Your task to perform on an android device: turn on the 24-hour format for clock Image 0: 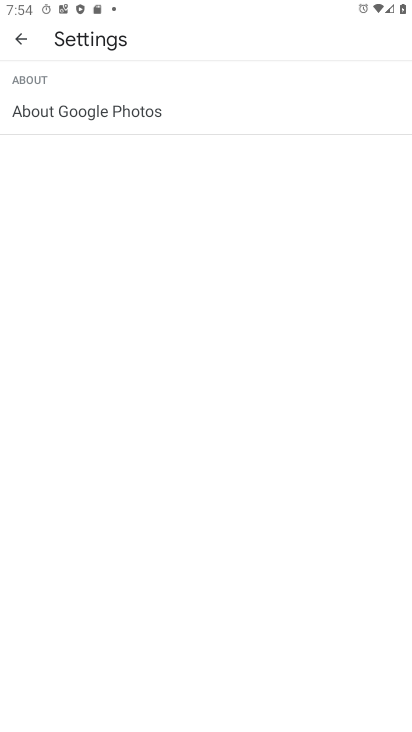
Step 0: press home button
Your task to perform on an android device: turn on the 24-hour format for clock Image 1: 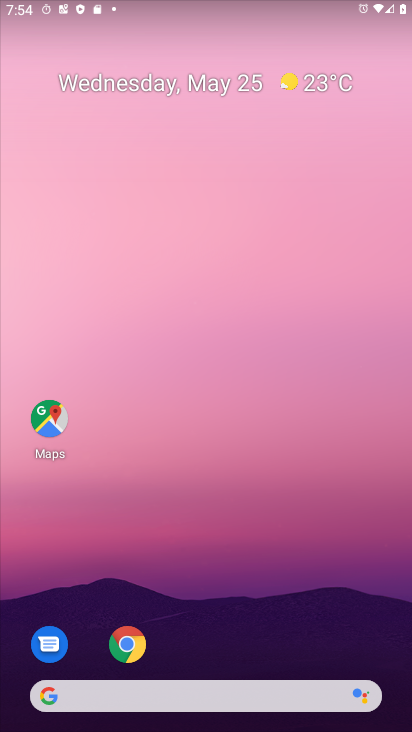
Step 1: drag from (276, 721) to (252, 69)
Your task to perform on an android device: turn on the 24-hour format for clock Image 2: 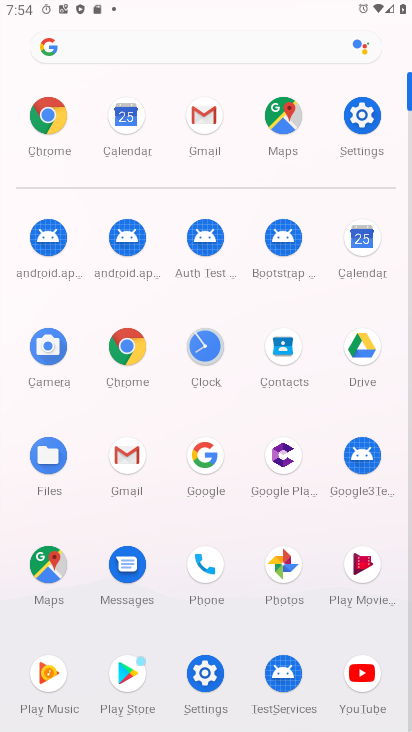
Step 2: click (214, 354)
Your task to perform on an android device: turn on the 24-hour format for clock Image 3: 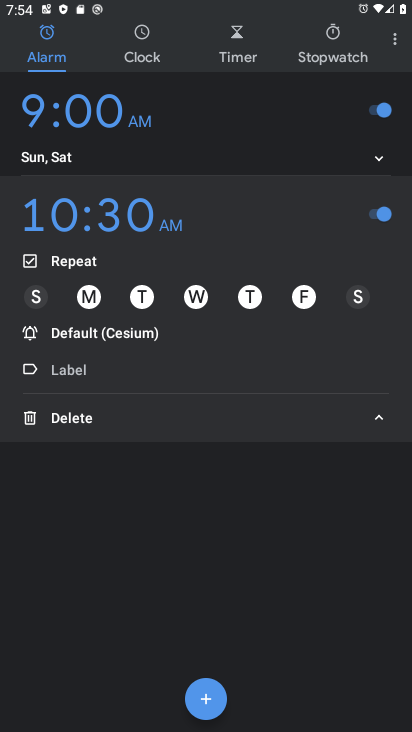
Step 3: click (387, 39)
Your task to perform on an android device: turn on the 24-hour format for clock Image 4: 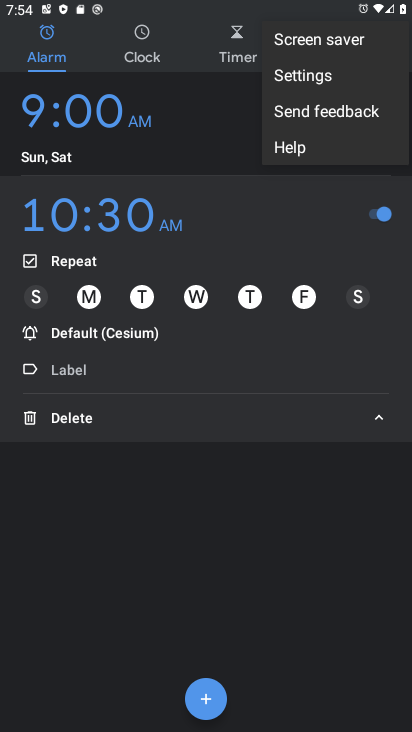
Step 4: click (330, 83)
Your task to perform on an android device: turn on the 24-hour format for clock Image 5: 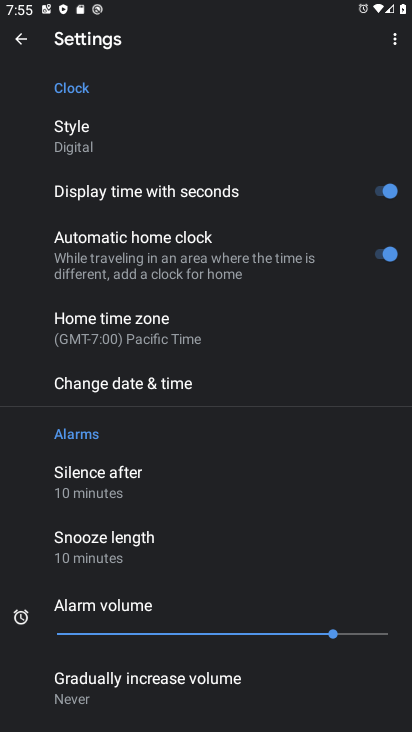
Step 5: click (131, 380)
Your task to perform on an android device: turn on the 24-hour format for clock Image 6: 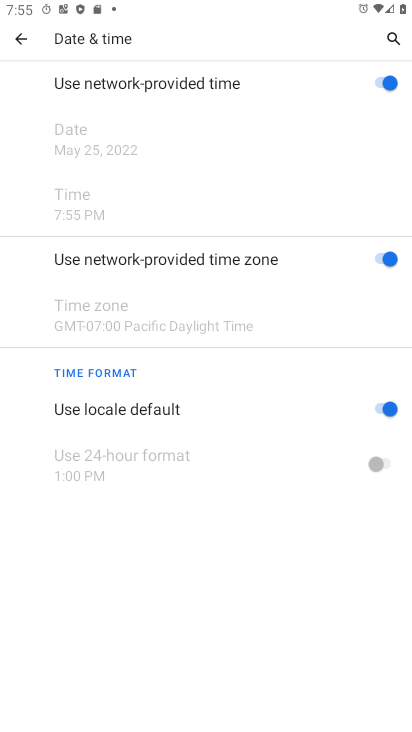
Step 6: click (386, 404)
Your task to perform on an android device: turn on the 24-hour format for clock Image 7: 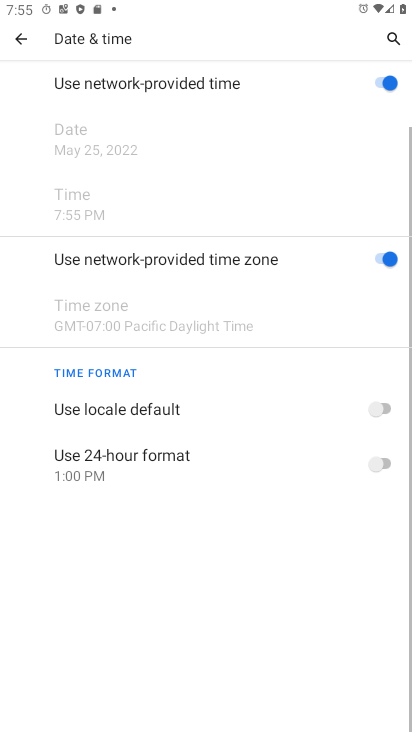
Step 7: click (392, 466)
Your task to perform on an android device: turn on the 24-hour format for clock Image 8: 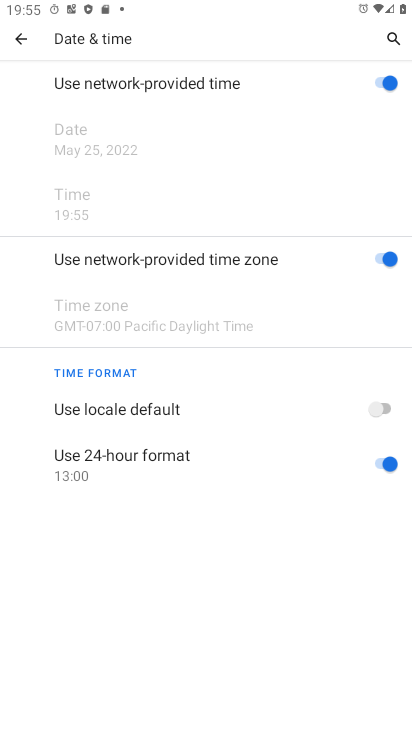
Step 8: task complete